Your task to perform on an android device: turn off location history Image 0: 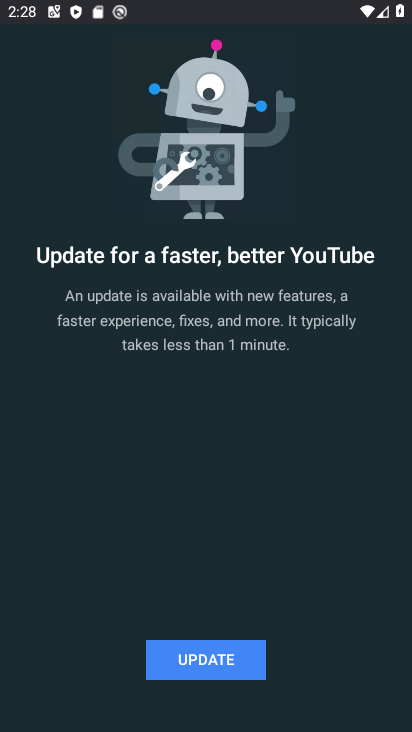
Step 0: press home button
Your task to perform on an android device: turn off location history Image 1: 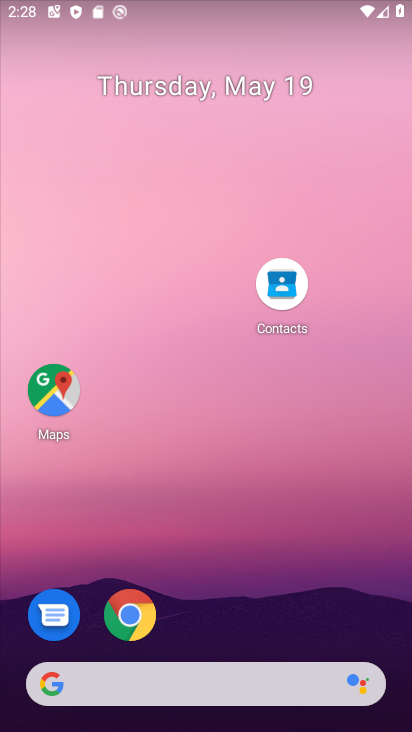
Step 1: drag from (330, 703) to (411, 206)
Your task to perform on an android device: turn off location history Image 2: 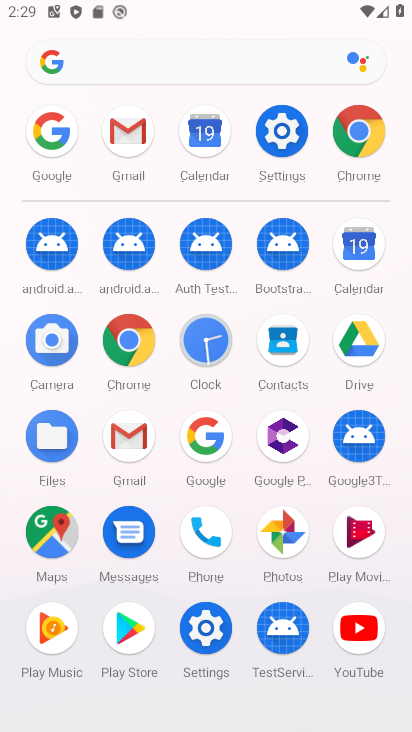
Step 2: click (277, 145)
Your task to perform on an android device: turn off location history Image 3: 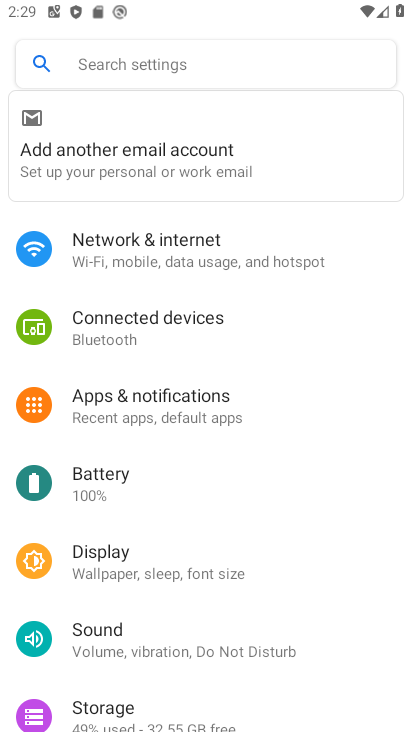
Step 3: drag from (189, 623) to (199, 312)
Your task to perform on an android device: turn off location history Image 4: 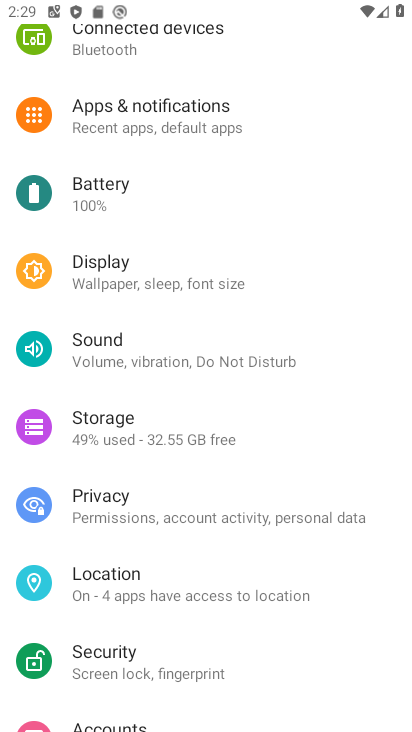
Step 4: click (191, 590)
Your task to perform on an android device: turn off location history Image 5: 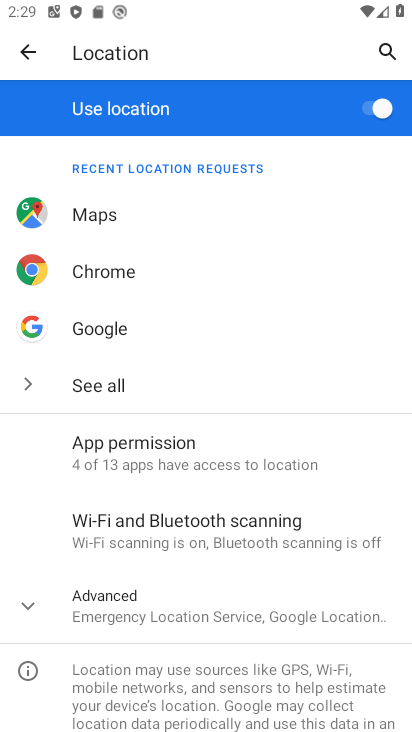
Step 5: click (210, 618)
Your task to perform on an android device: turn off location history Image 6: 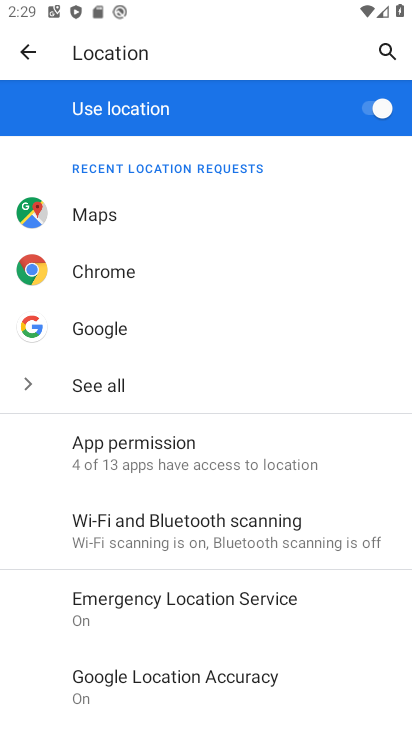
Step 6: drag from (245, 632) to (311, 284)
Your task to perform on an android device: turn off location history Image 7: 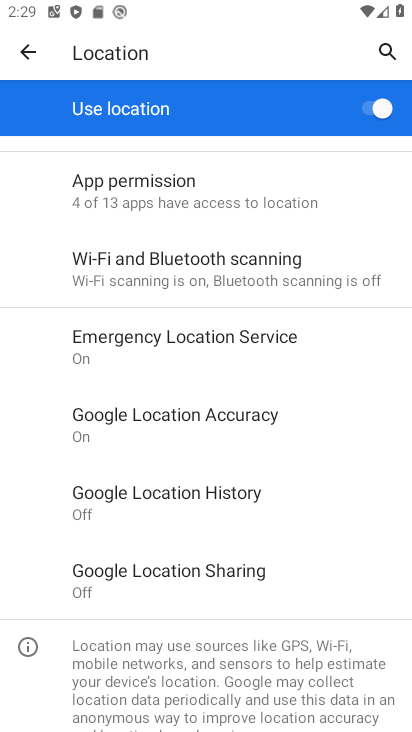
Step 7: click (250, 498)
Your task to perform on an android device: turn off location history Image 8: 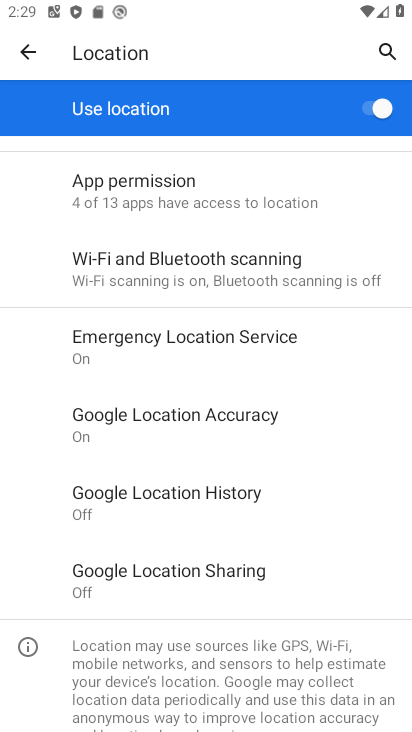
Step 8: click (231, 508)
Your task to perform on an android device: turn off location history Image 9: 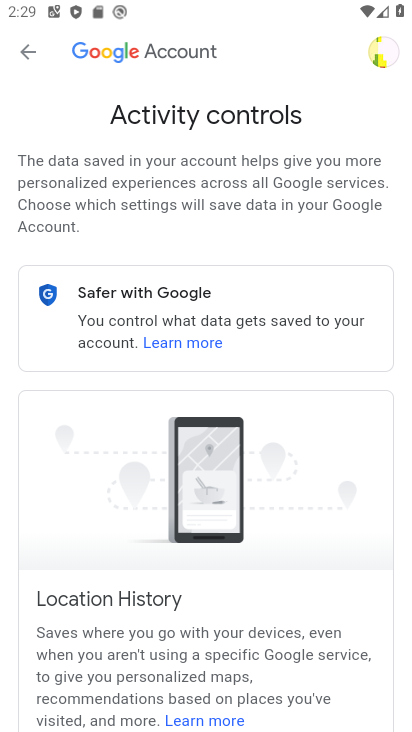
Step 9: task complete